Your task to perform on an android device: toggle notifications settings in the gmail app Image 0: 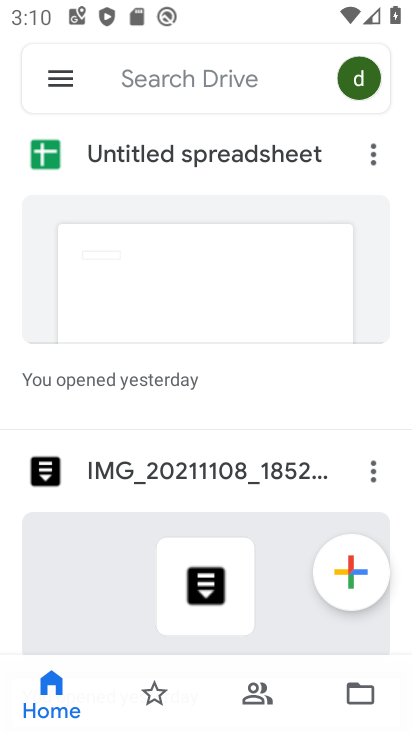
Step 0: drag from (164, 591) to (226, 152)
Your task to perform on an android device: toggle notifications settings in the gmail app Image 1: 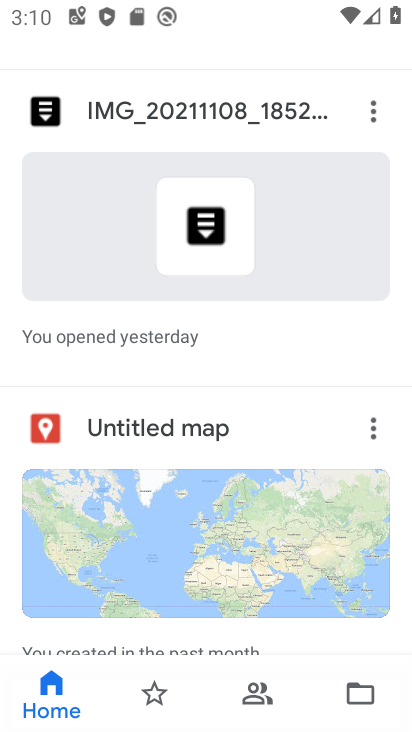
Step 1: press home button
Your task to perform on an android device: toggle notifications settings in the gmail app Image 2: 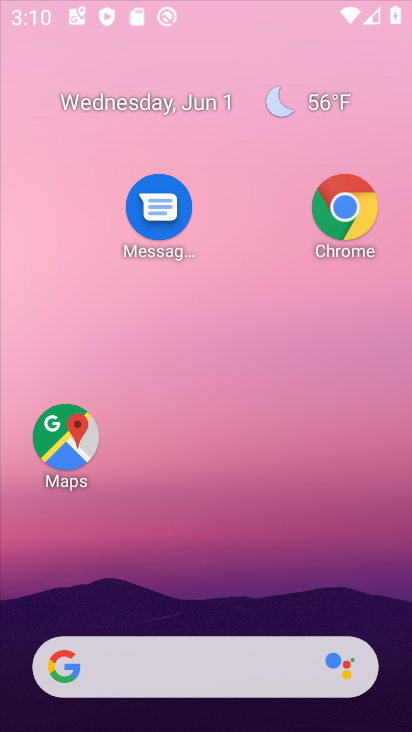
Step 2: drag from (198, 532) to (234, 169)
Your task to perform on an android device: toggle notifications settings in the gmail app Image 3: 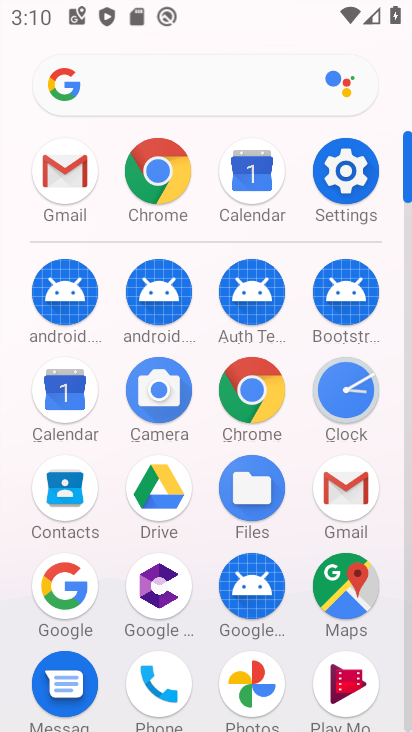
Step 3: click (346, 489)
Your task to perform on an android device: toggle notifications settings in the gmail app Image 4: 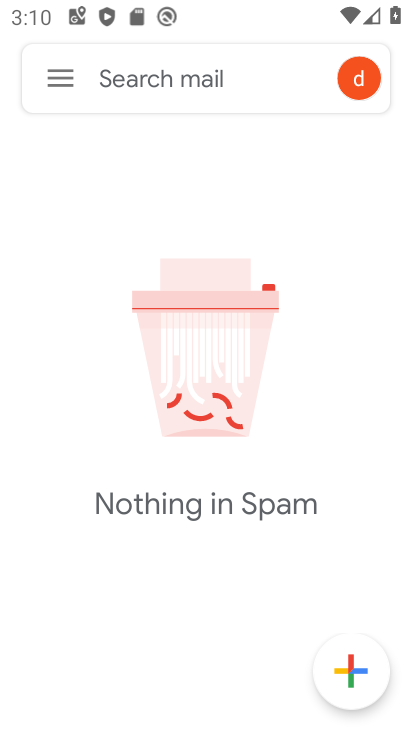
Step 4: click (54, 76)
Your task to perform on an android device: toggle notifications settings in the gmail app Image 5: 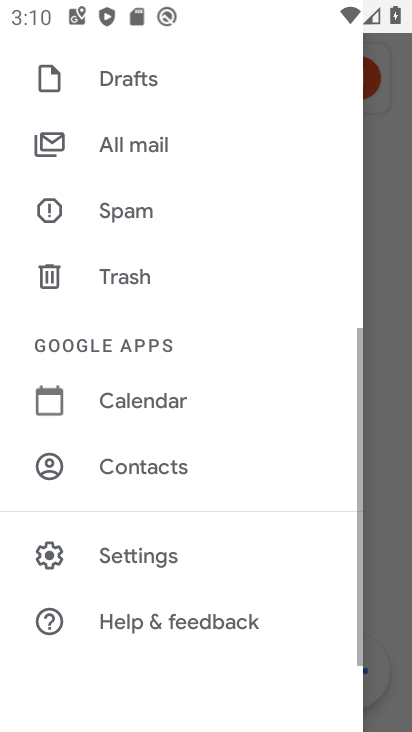
Step 5: click (127, 562)
Your task to perform on an android device: toggle notifications settings in the gmail app Image 6: 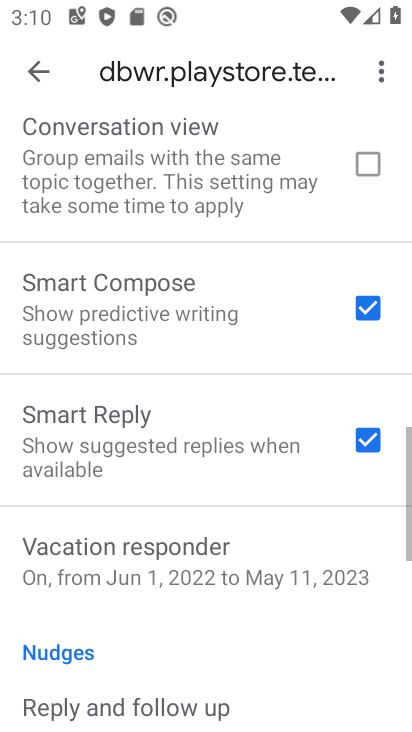
Step 6: drag from (138, 559) to (257, 256)
Your task to perform on an android device: toggle notifications settings in the gmail app Image 7: 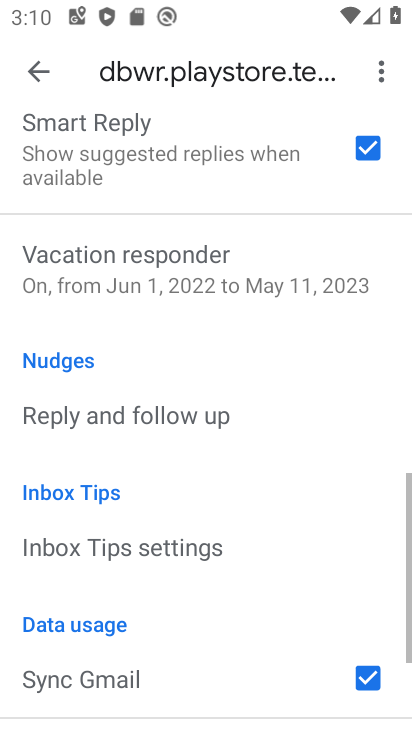
Step 7: drag from (258, 223) to (236, 723)
Your task to perform on an android device: toggle notifications settings in the gmail app Image 8: 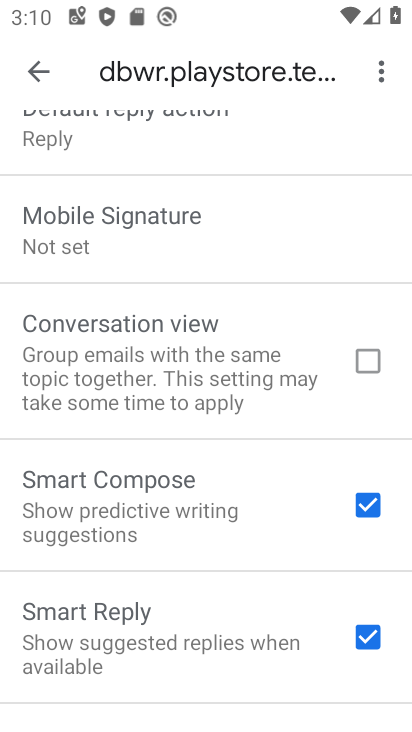
Step 8: drag from (186, 224) to (285, 727)
Your task to perform on an android device: toggle notifications settings in the gmail app Image 9: 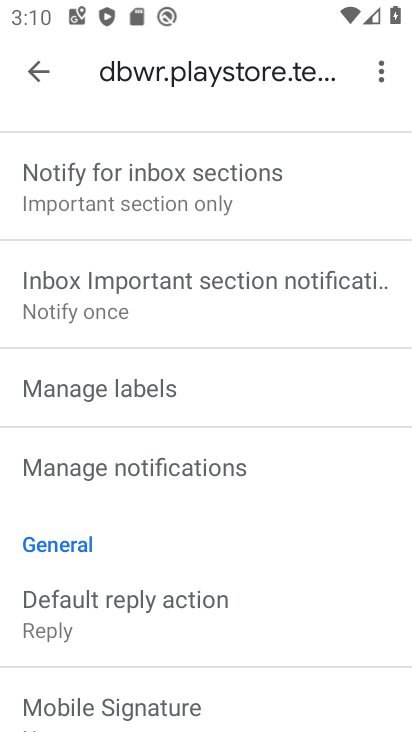
Step 9: click (154, 466)
Your task to perform on an android device: toggle notifications settings in the gmail app Image 10: 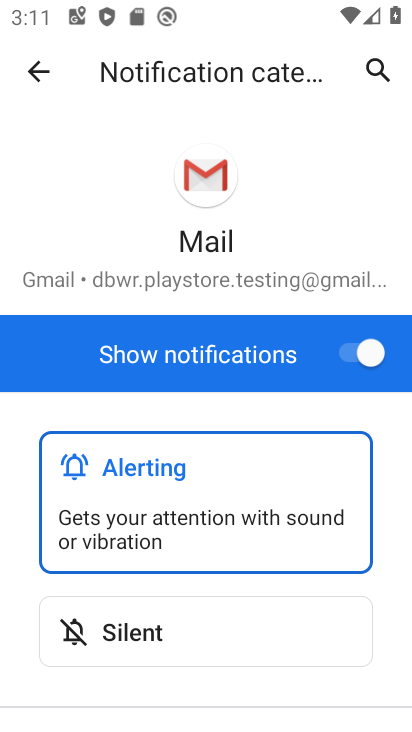
Step 10: drag from (196, 619) to (288, 174)
Your task to perform on an android device: toggle notifications settings in the gmail app Image 11: 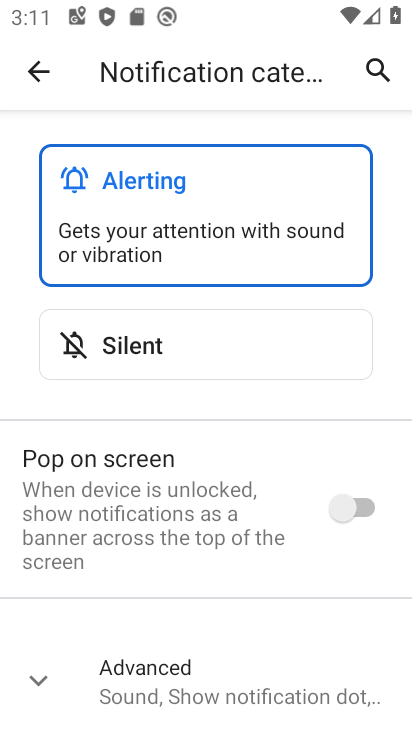
Step 11: drag from (222, 212) to (203, 668)
Your task to perform on an android device: toggle notifications settings in the gmail app Image 12: 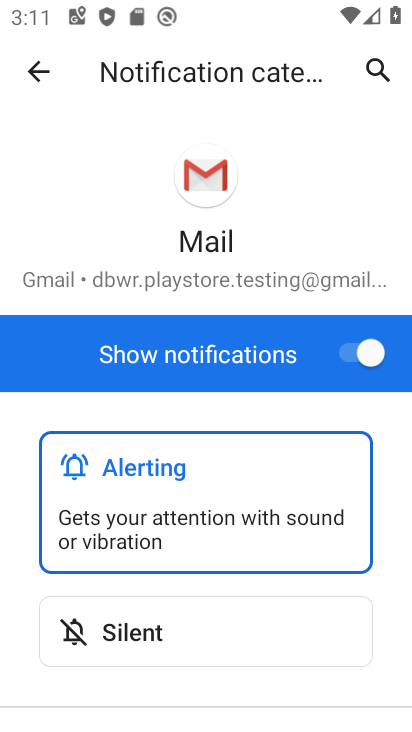
Step 12: drag from (211, 580) to (256, 279)
Your task to perform on an android device: toggle notifications settings in the gmail app Image 13: 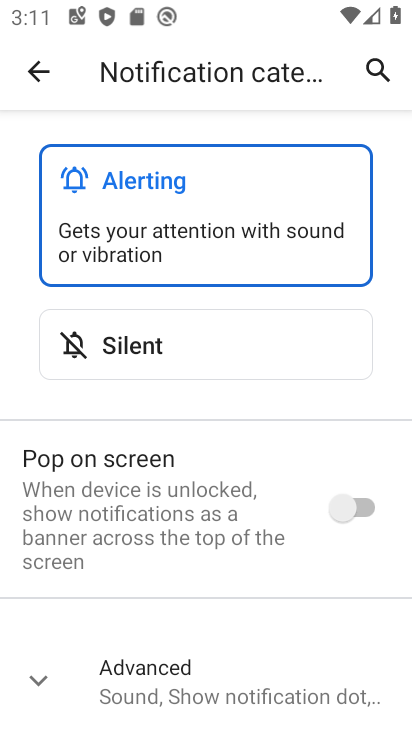
Step 13: drag from (218, 565) to (250, 725)
Your task to perform on an android device: toggle notifications settings in the gmail app Image 14: 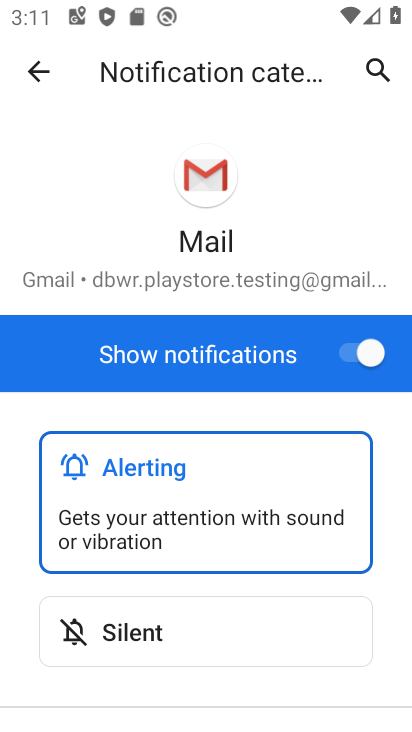
Step 14: click (347, 351)
Your task to perform on an android device: toggle notifications settings in the gmail app Image 15: 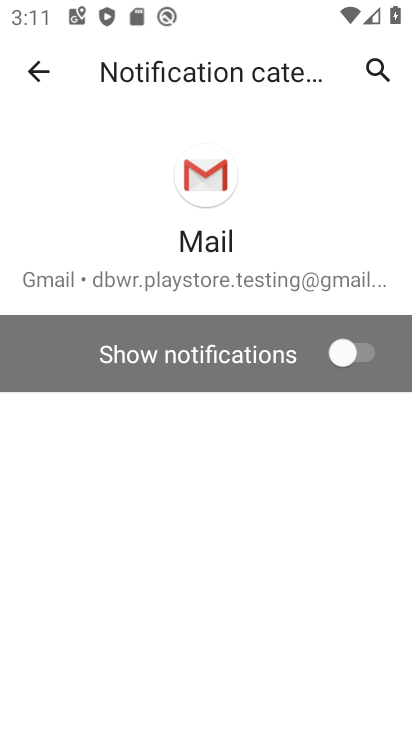
Step 15: task complete